Your task to perform on an android device: Go to Yahoo.com Image 0: 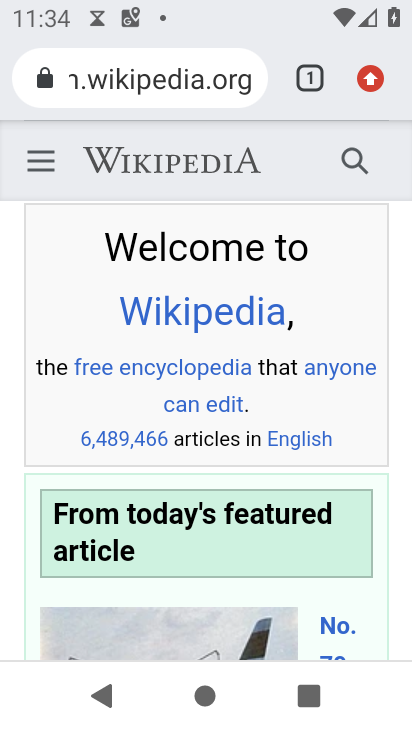
Step 0: press home button
Your task to perform on an android device: Go to Yahoo.com Image 1: 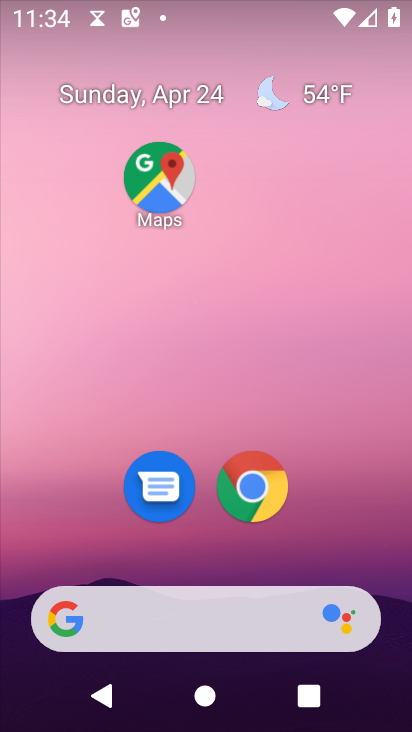
Step 1: click (261, 511)
Your task to perform on an android device: Go to Yahoo.com Image 2: 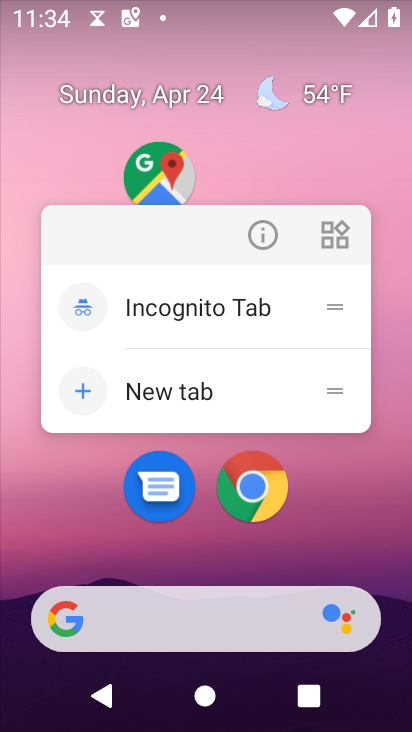
Step 2: click (265, 248)
Your task to perform on an android device: Go to Yahoo.com Image 3: 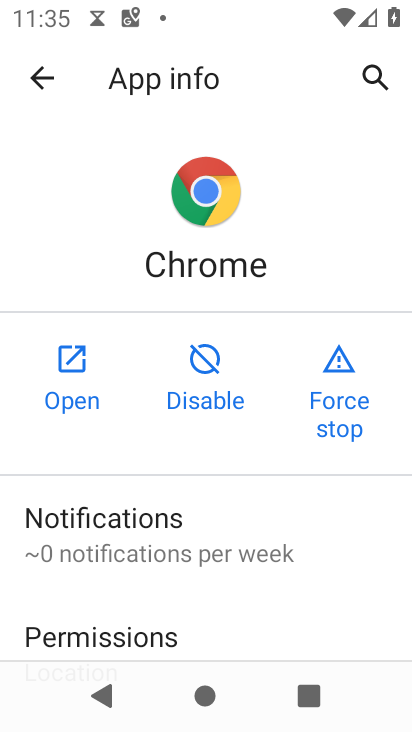
Step 3: click (100, 395)
Your task to perform on an android device: Go to Yahoo.com Image 4: 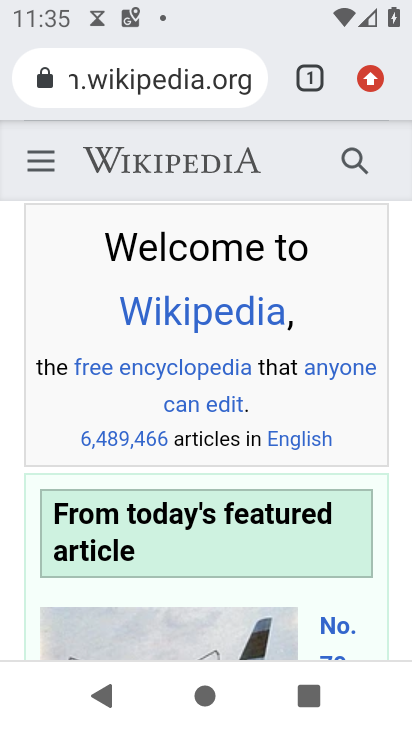
Step 4: click (369, 84)
Your task to perform on an android device: Go to Yahoo.com Image 5: 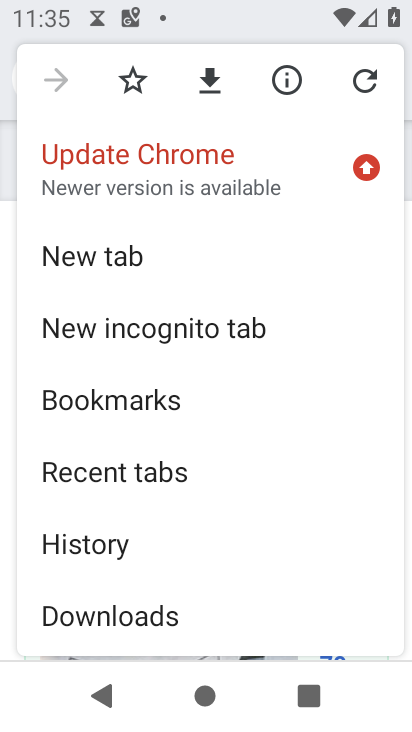
Step 5: click (75, 255)
Your task to perform on an android device: Go to Yahoo.com Image 6: 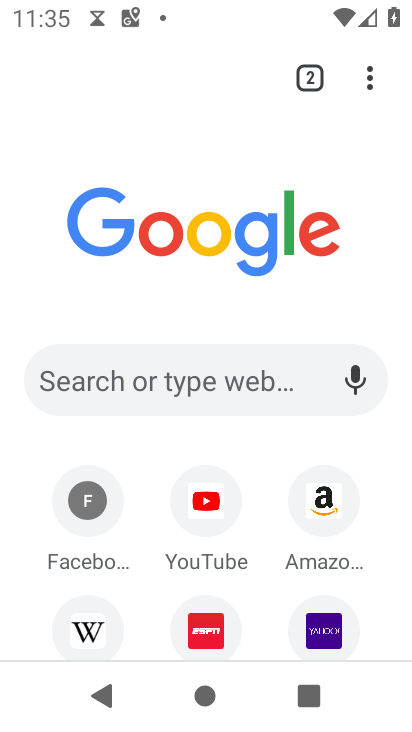
Step 6: click (338, 627)
Your task to perform on an android device: Go to Yahoo.com Image 7: 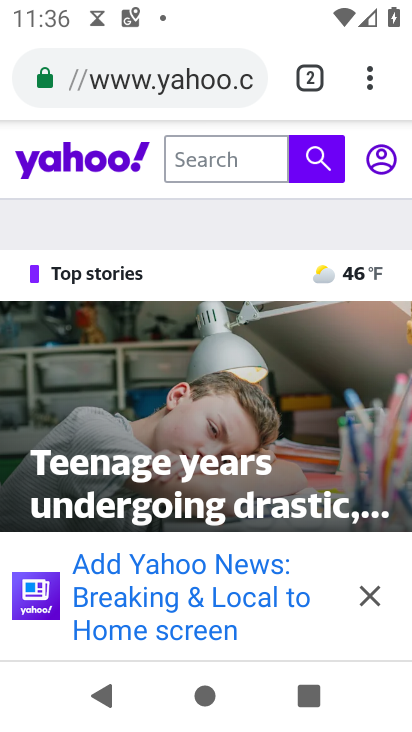
Step 7: task complete